Your task to perform on an android device: turn off data saver in the chrome app Image 0: 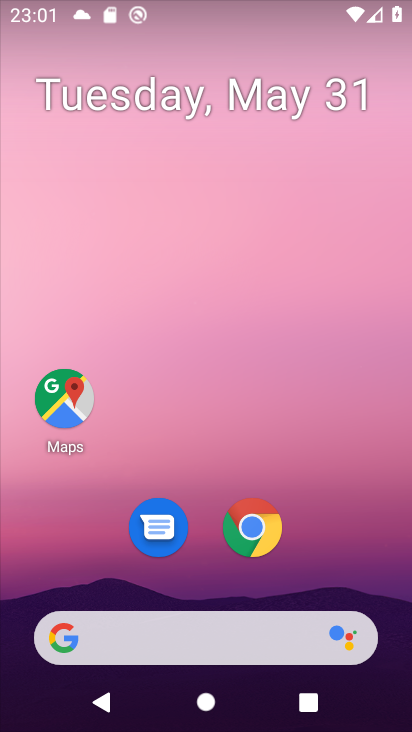
Step 0: click (255, 544)
Your task to perform on an android device: turn off data saver in the chrome app Image 1: 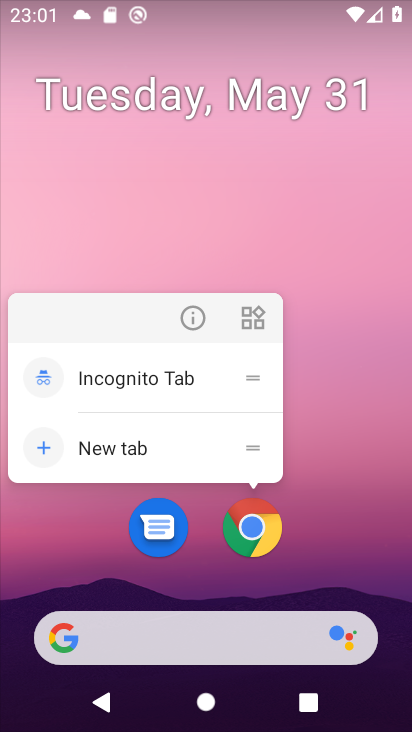
Step 1: click (268, 518)
Your task to perform on an android device: turn off data saver in the chrome app Image 2: 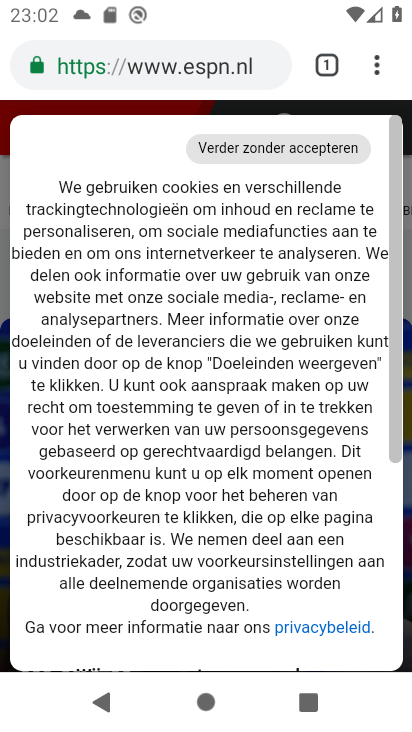
Step 2: click (369, 57)
Your task to perform on an android device: turn off data saver in the chrome app Image 3: 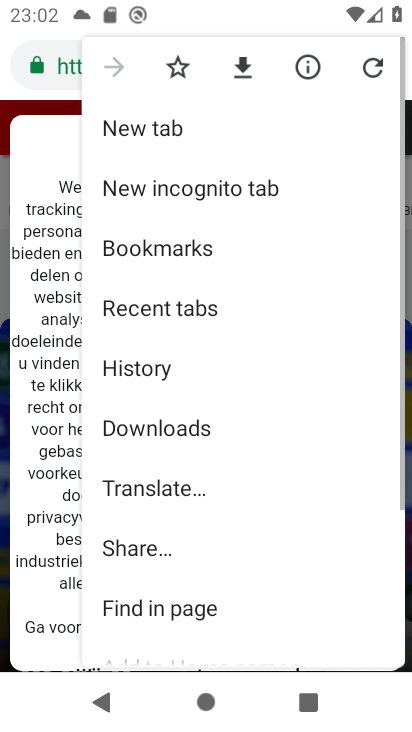
Step 3: drag from (235, 307) to (191, 3)
Your task to perform on an android device: turn off data saver in the chrome app Image 4: 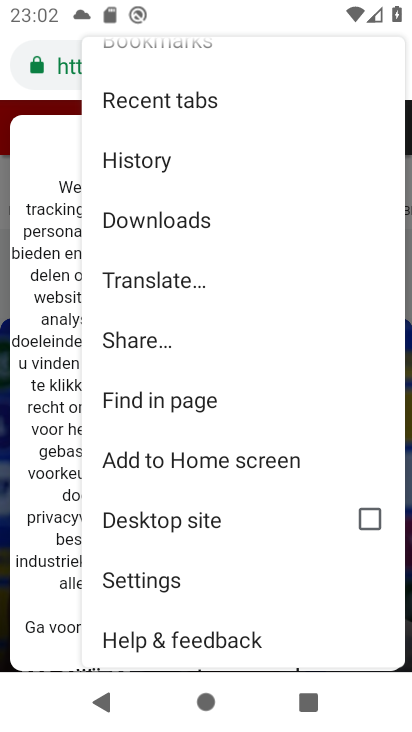
Step 4: click (145, 581)
Your task to perform on an android device: turn off data saver in the chrome app Image 5: 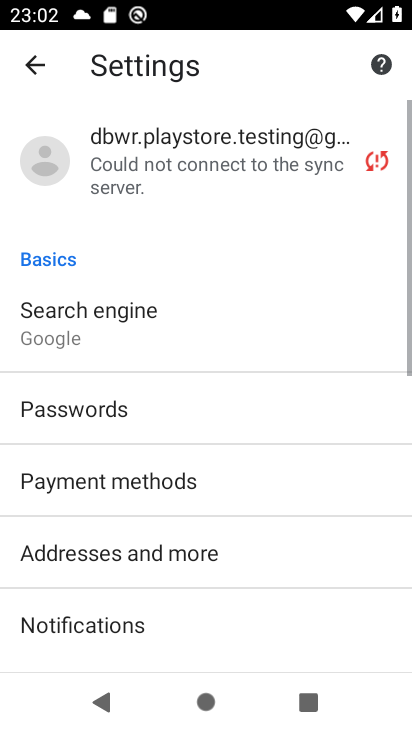
Step 5: drag from (202, 517) to (211, 57)
Your task to perform on an android device: turn off data saver in the chrome app Image 6: 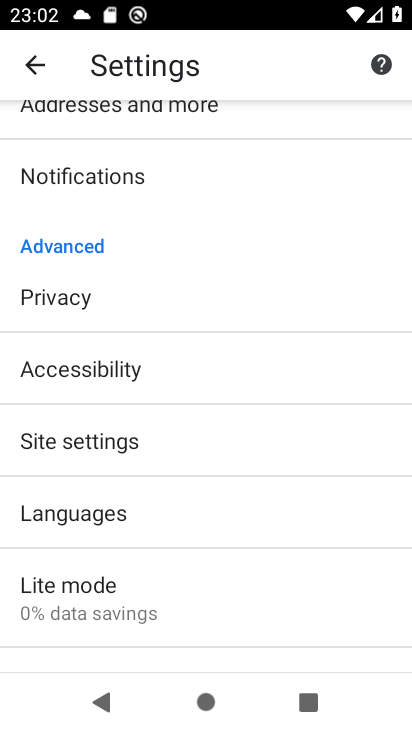
Step 6: click (215, 605)
Your task to perform on an android device: turn off data saver in the chrome app Image 7: 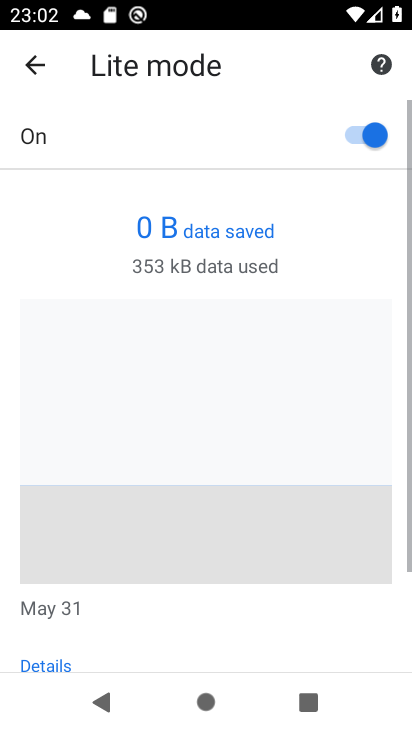
Step 7: click (356, 123)
Your task to perform on an android device: turn off data saver in the chrome app Image 8: 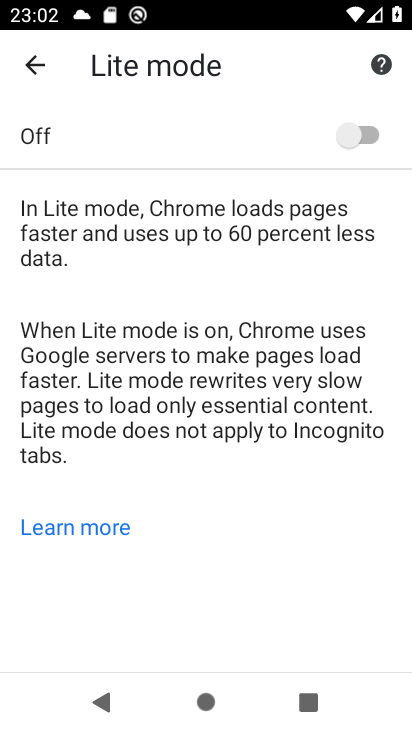
Step 8: task complete